Your task to perform on an android device: manage bookmarks in the chrome app Image 0: 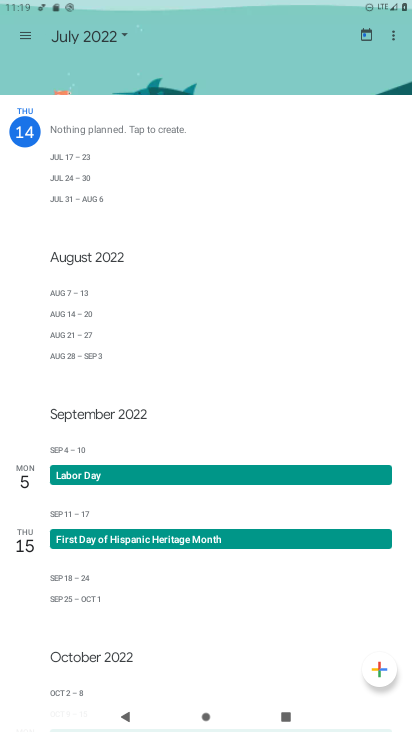
Step 0: press home button
Your task to perform on an android device: manage bookmarks in the chrome app Image 1: 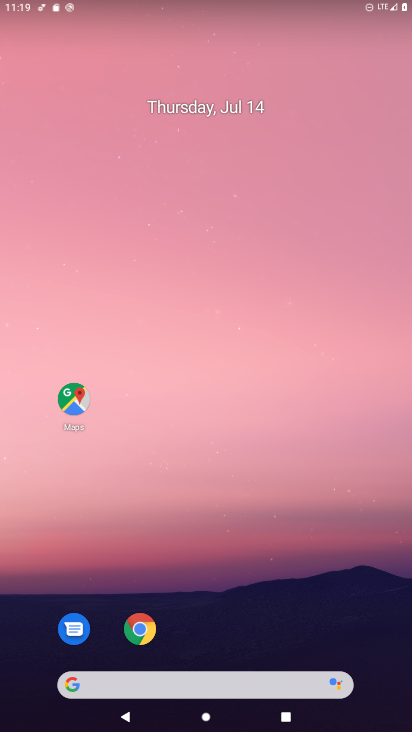
Step 1: drag from (257, 724) to (289, 84)
Your task to perform on an android device: manage bookmarks in the chrome app Image 2: 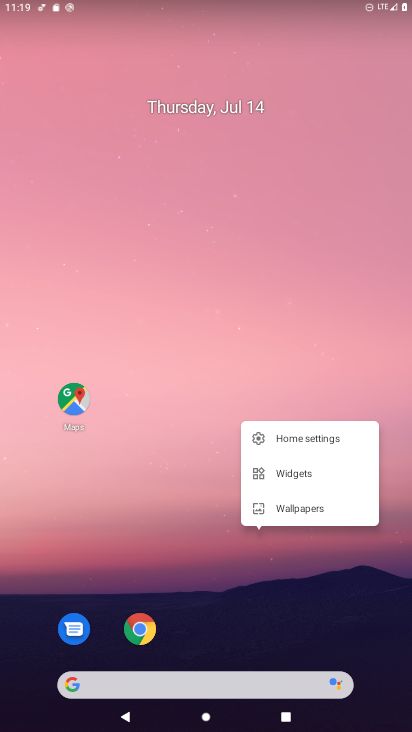
Step 2: click (313, 307)
Your task to perform on an android device: manage bookmarks in the chrome app Image 3: 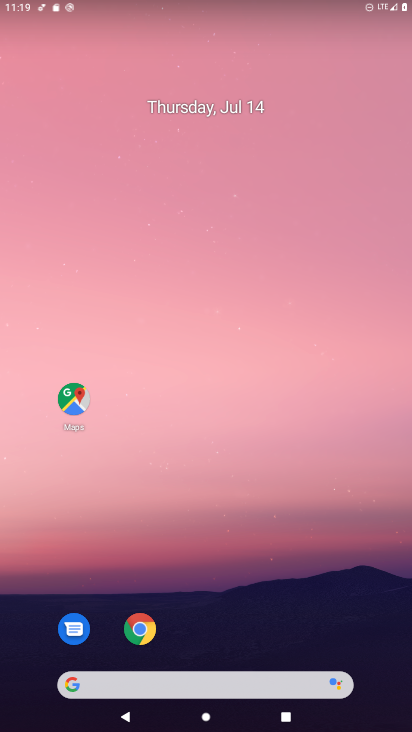
Step 3: drag from (234, 681) to (256, 161)
Your task to perform on an android device: manage bookmarks in the chrome app Image 4: 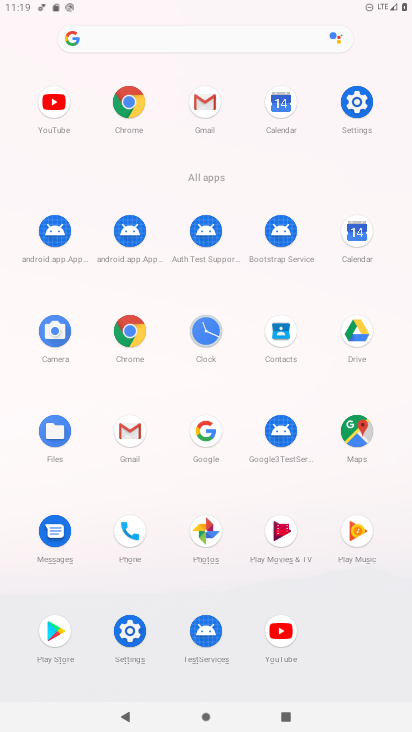
Step 4: click (133, 114)
Your task to perform on an android device: manage bookmarks in the chrome app Image 5: 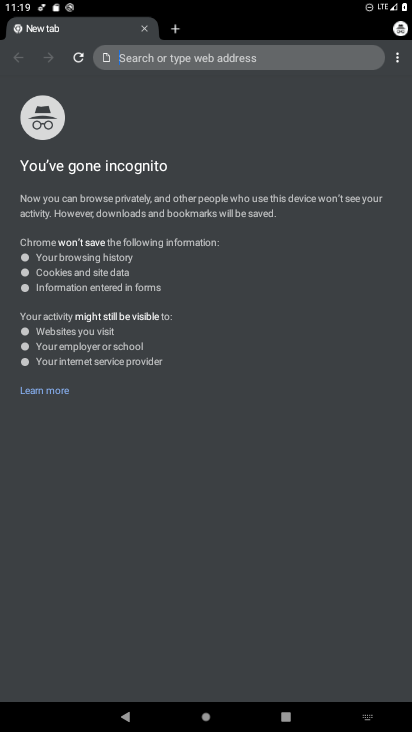
Step 5: click (402, 60)
Your task to perform on an android device: manage bookmarks in the chrome app Image 6: 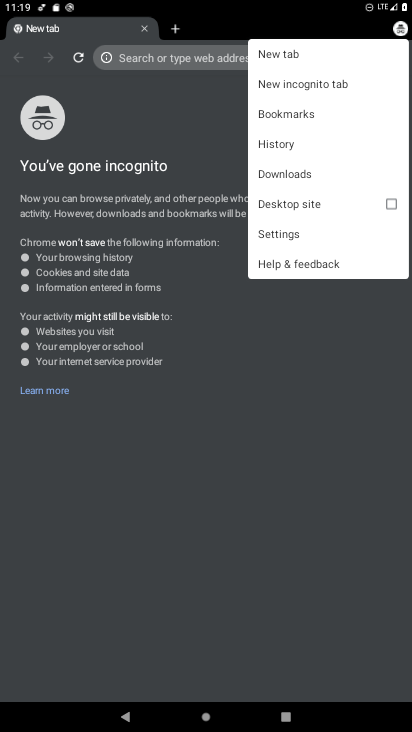
Step 6: click (273, 112)
Your task to perform on an android device: manage bookmarks in the chrome app Image 7: 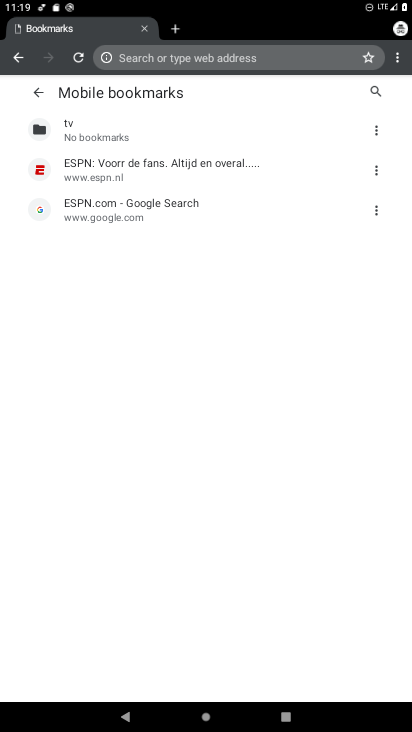
Step 7: task complete